Your task to perform on an android device: change the clock display to analog Image 0: 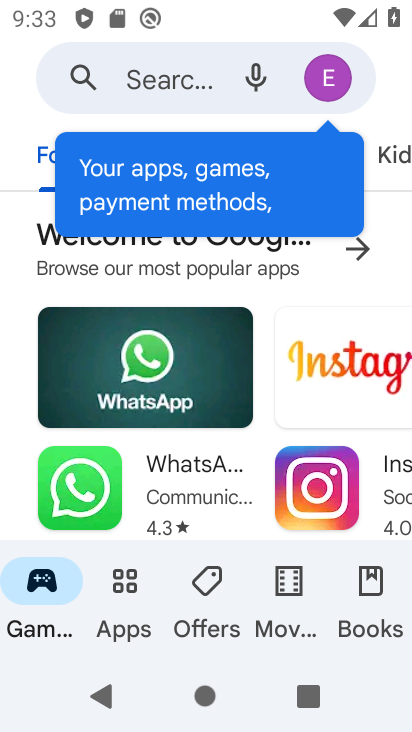
Step 0: press back button
Your task to perform on an android device: change the clock display to analog Image 1: 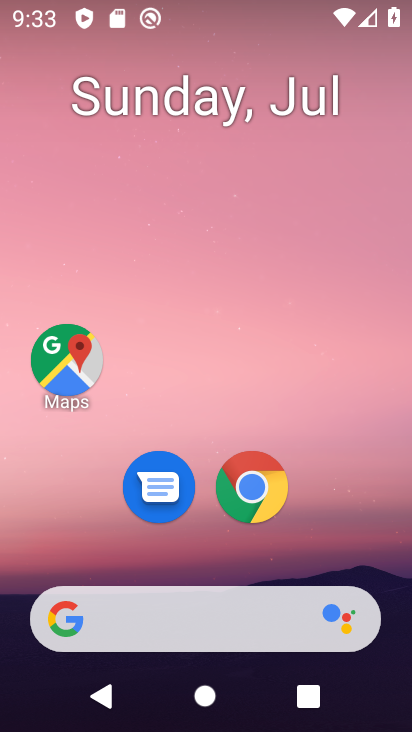
Step 1: drag from (159, 556) to (227, 26)
Your task to perform on an android device: change the clock display to analog Image 2: 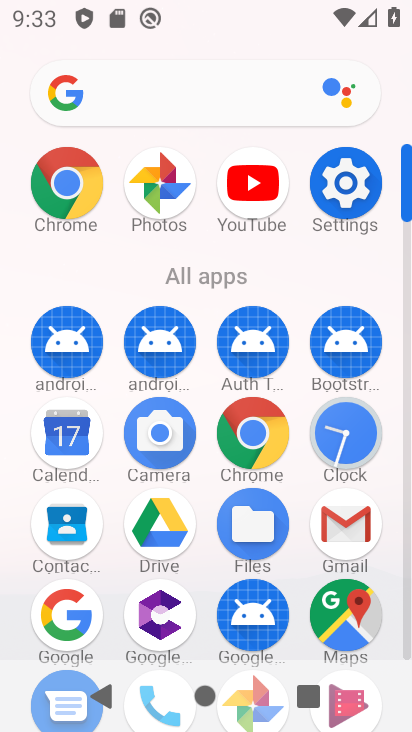
Step 2: click (347, 435)
Your task to perform on an android device: change the clock display to analog Image 3: 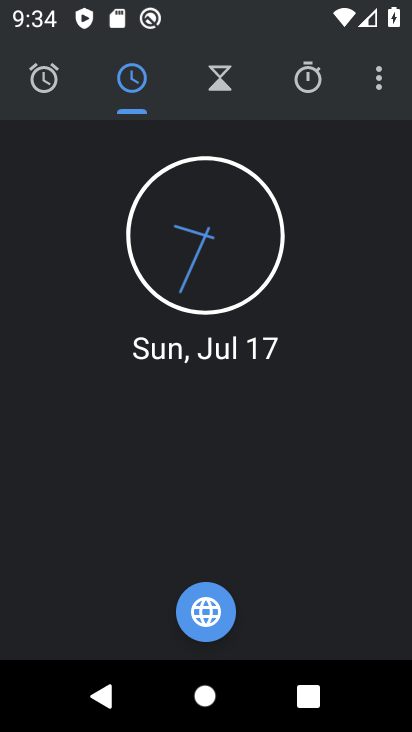
Step 3: click (382, 77)
Your task to perform on an android device: change the clock display to analog Image 4: 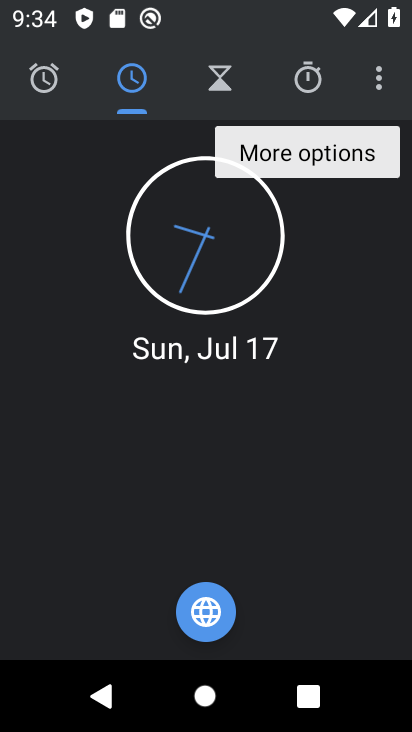
Step 4: click (380, 70)
Your task to perform on an android device: change the clock display to analog Image 5: 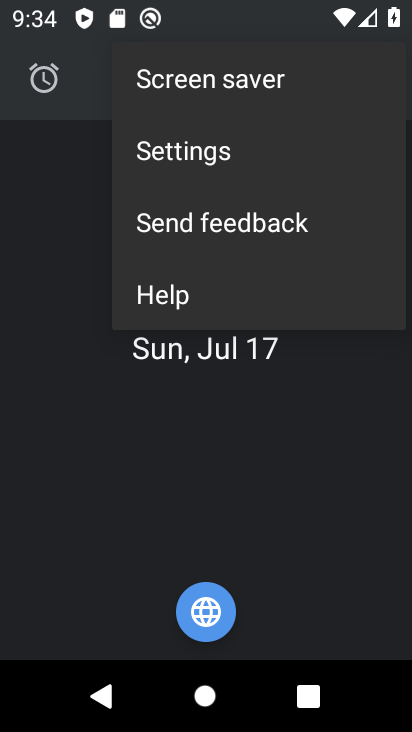
Step 5: click (190, 166)
Your task to perform on an android device: change the clock display to analog Image 6: 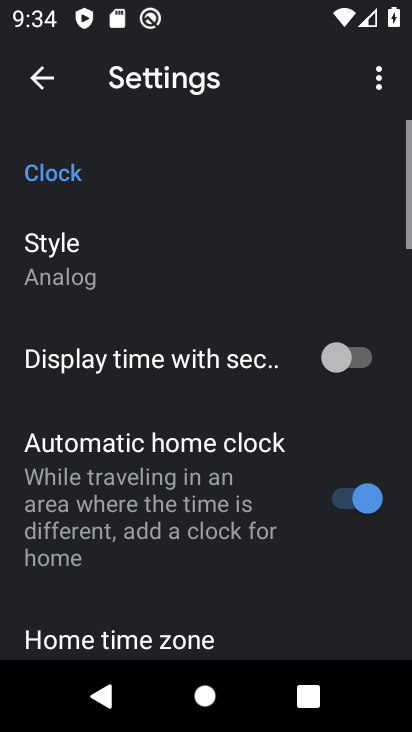
Step 6: click (73, 288)
Your task to perform on an android device: change the clock display to analog Image 7: 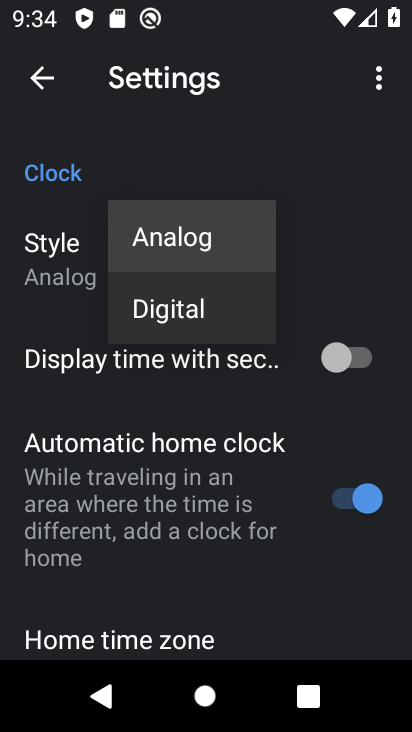
Step 7: click (165, 300)
Your task to perform on an android device: change the clock display to analog Image 8: 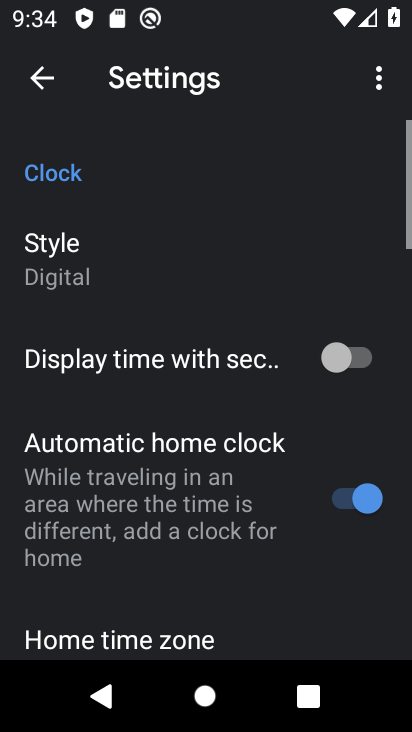
Step 8: task complete